Your task to perform on an android device: refresh tabs in the chrome app Image 0: 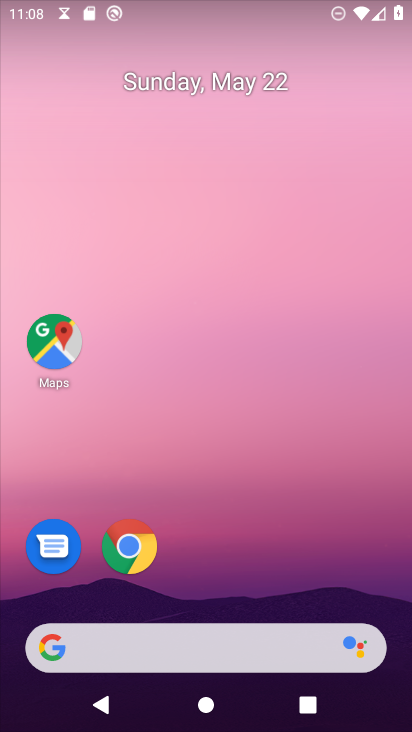
Step 0: drag from (222, 606) to (262, 0)
Your task to perform on an android device: refresh tabs in the chrome app Image 1: 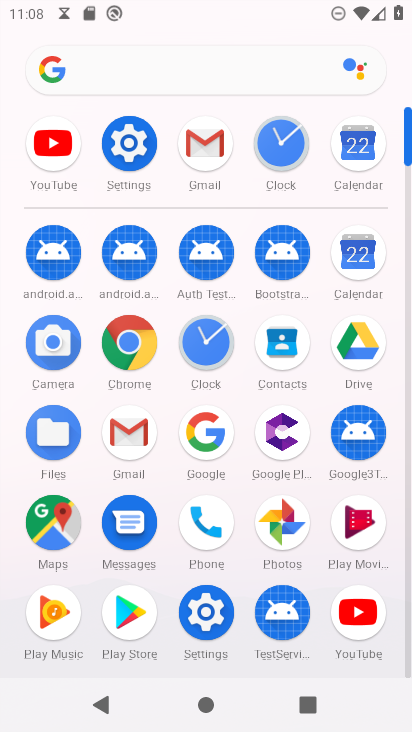
Step 1: click (131, 356)
Your task to perform on an android device: refresh tabs in the chrome app Image 2: 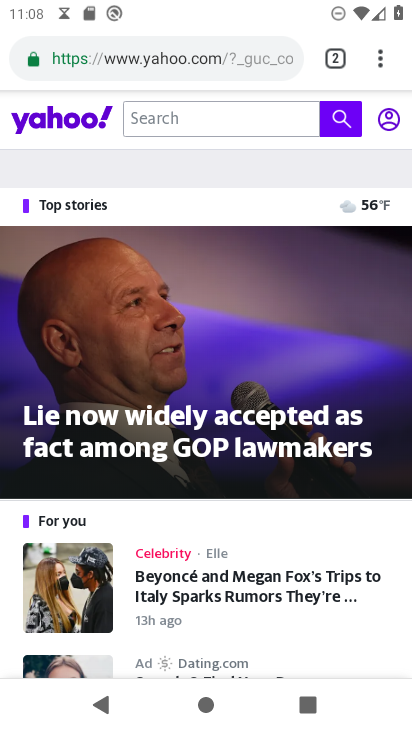
Step 2: click (381, 60)
Your task to perform on an android device: refresh tabs in the chrome app Image 3: 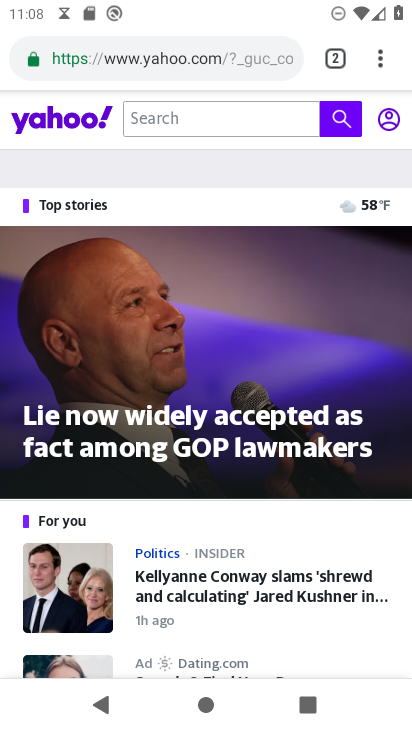
Step 3: click (379, 61)
Your task to perform on an android device: refresh tabs in the chrome app Image 4: 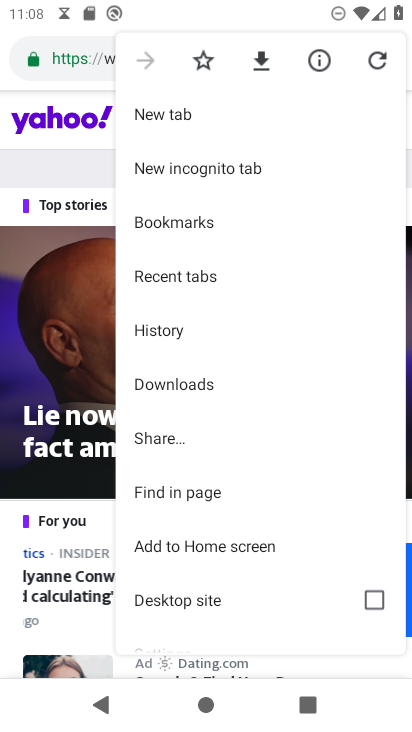
Step 4: click (381, 56)
Your task to perform on an android device: refresh tabs in the chrome app Image 5: 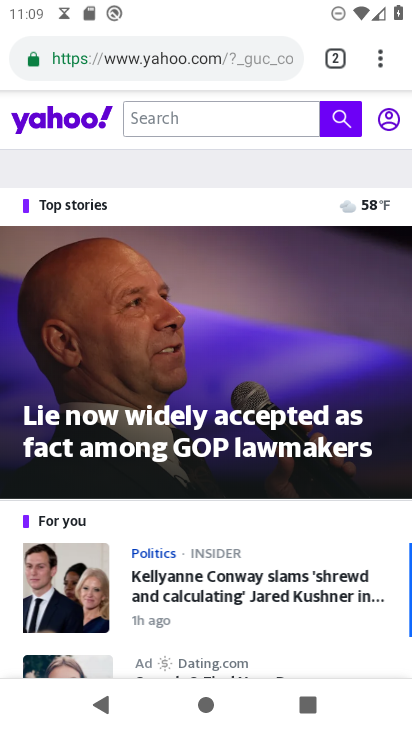
Step 5: task complete